Your task to perform on an android device: turn off data saver in the chrome app Image 0: 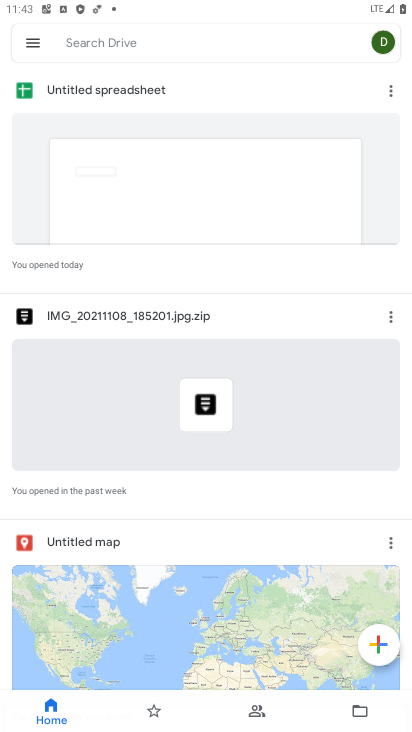
Step 0: press home button
Your task to perform on an android device: turn off data saver in the chrome app Image 1: 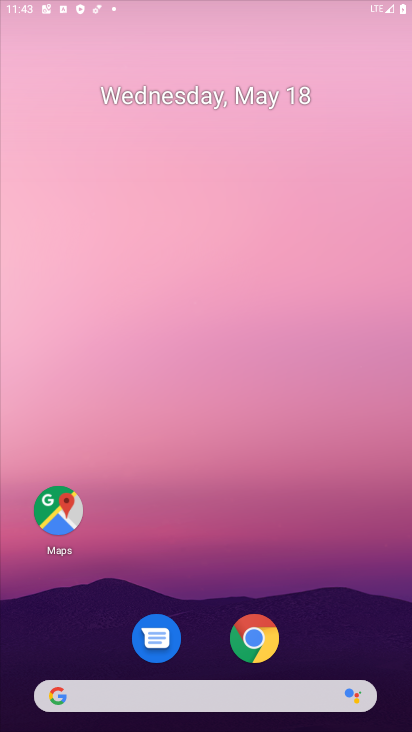
Step 1: drag from (351, 644) to (333, 79)
Your task to perform on an android device: turn off data saver in the chrome app Image 2: 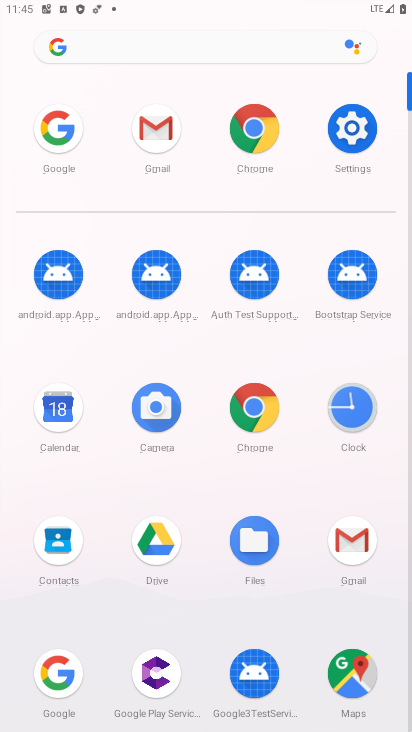
Step 2: click (264, 115)
Your task to perform on an android device: turn off data saver in the chrome app Image 3: 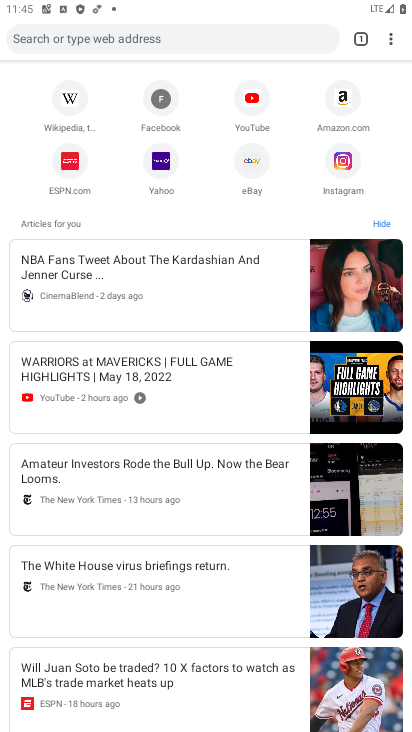
Step 3: click (387, 41)
Your task to perform on an android device: turn off data saver in the chrome app Image 4: 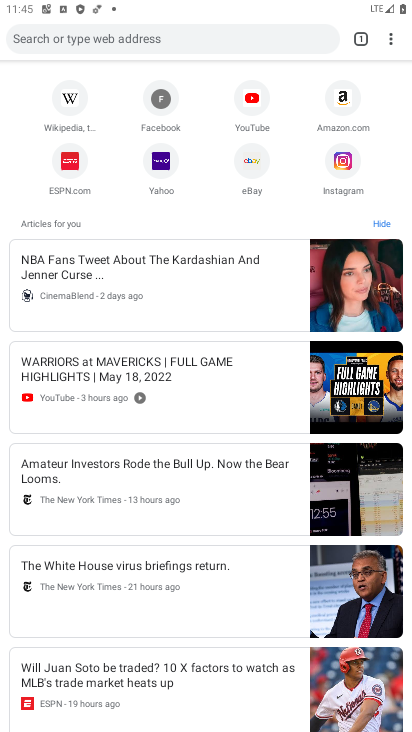
Step 4: click (390, 35)
Your task to perform on an android device: turn off data saver in the chrome app Image 5: 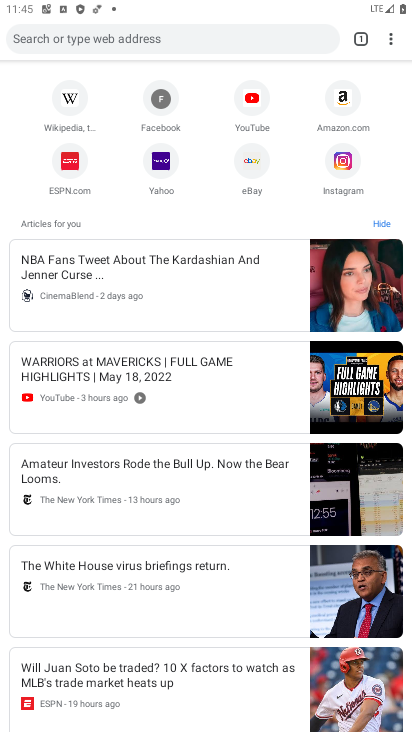
Step 5: click (390, 35)
Your task to perform on an android device: turn off data saver in the chrome app Image 6: 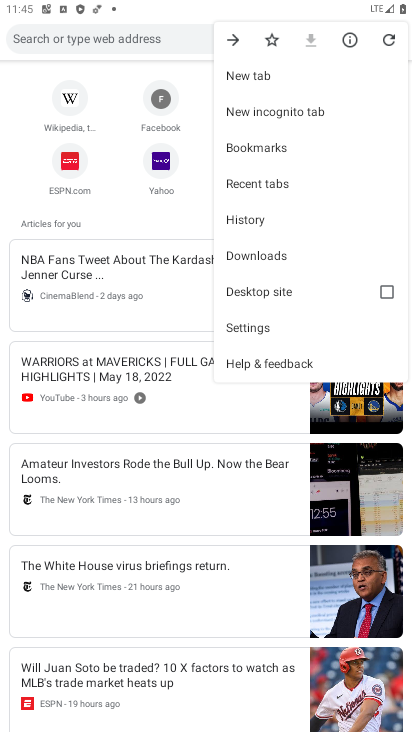
Step 6: click (262, 316)
Your task to perform on an android device: turn off data saver in the chrome app Image 7: 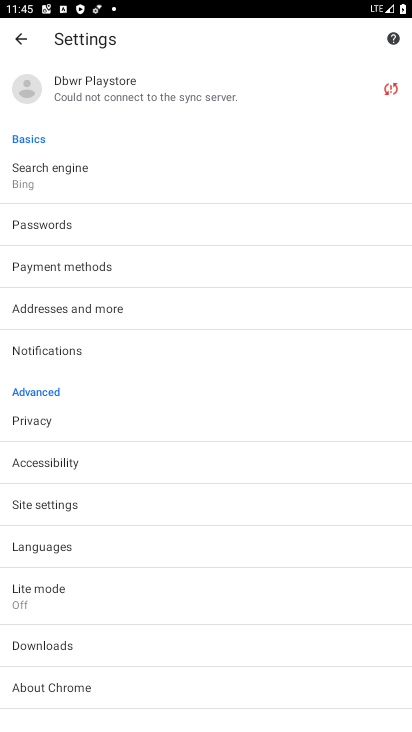
Step 7: click (121, 600)
Your task to perform on an android device: turn off data saver in the chrome app Image 8: 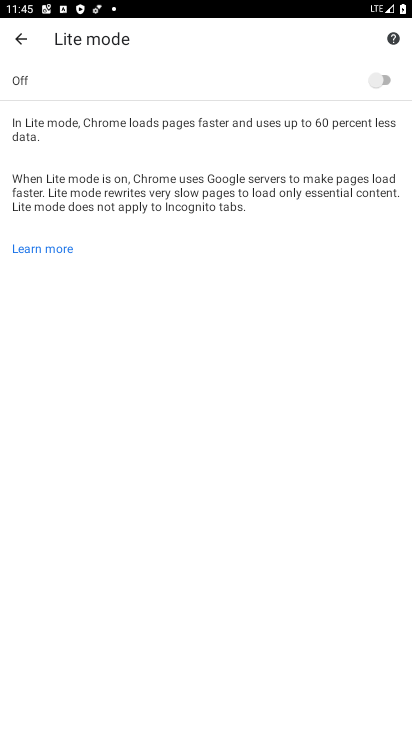
Step 8: task complete